Your task to perform on an android device: change your default location settings in chrome Image 0: 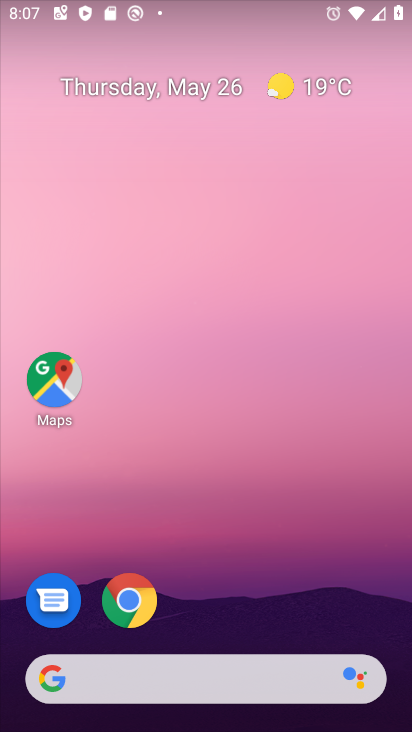
Step 0: press home button
Your task to perform on an android device: change your default location settings in chrome Image 1: 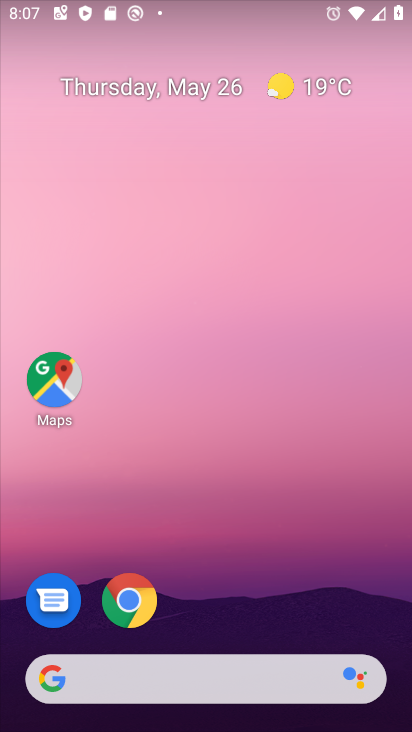
Step 1: click (141, 603)
Your task to perform on an android device: change your default location settings in chrome Image 2: 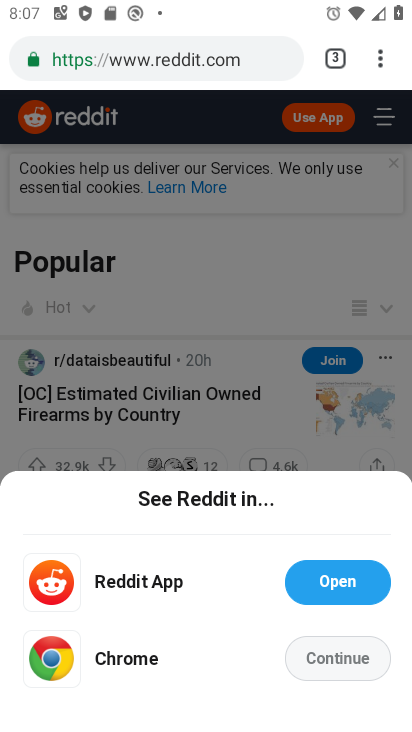
Step 2: drag from (385, 62) to (175, 637)
Your task to perform on an android device: change your default location settings in chrome Image 3: 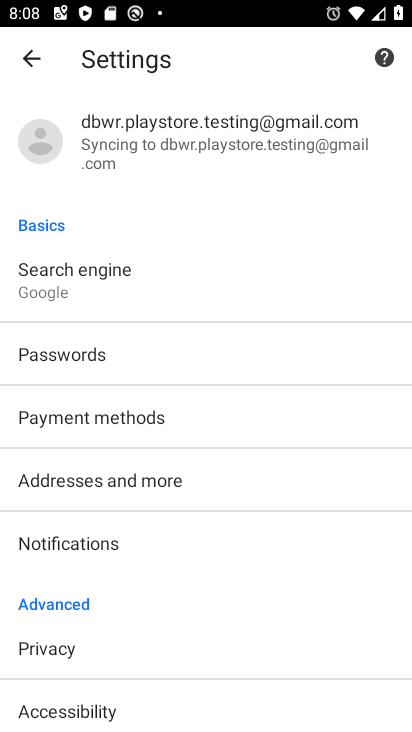
Step 3: drag from (280, 601) to (260, 270)
Your task to perform on an android device: change your default location settings in chrome Image 4: 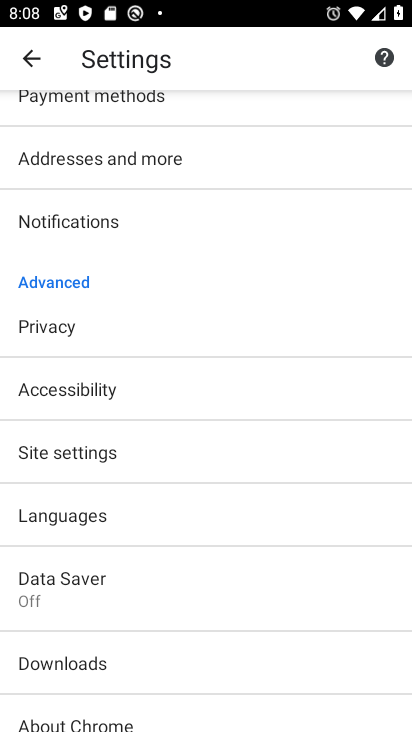
Step 4: drag from (286, 559) to (288, 258)
Your task to perform on an android device: change your default location settings in chrome Image 5: 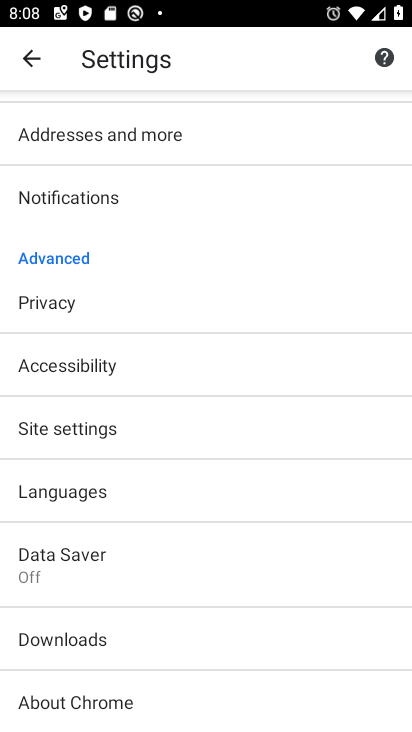
Step 5: click (66, 430)
Your task to perform on an android device: change your default location settings in chrome Image 6: 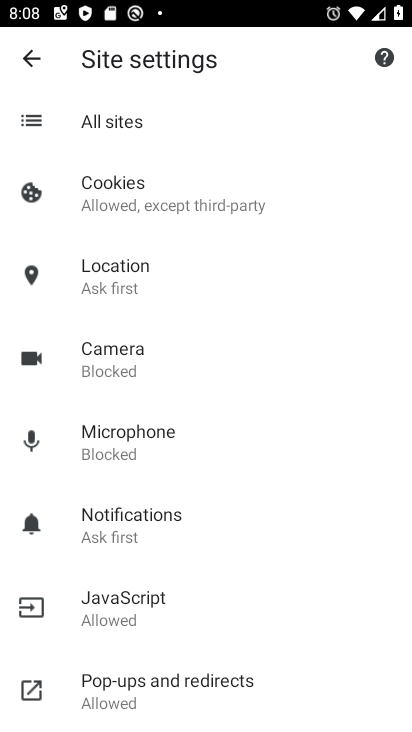
Step 6: click (115, 279)
Your task to perform on an android device: change your default location settings in chrome Image 7: 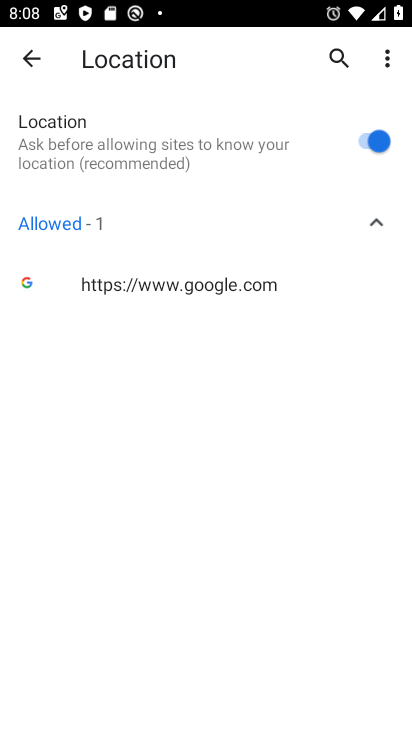
Step 7: click (376, 144)
Your task to perform on an android device: change your default location settings in chrome Image 8: 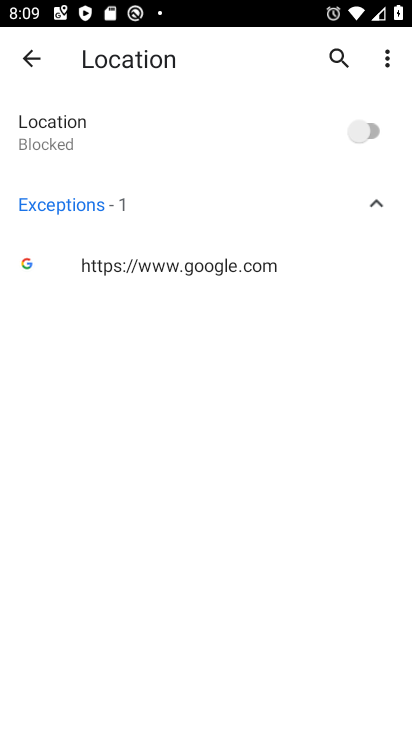
Step 8: task complete